Your task to perform on an android device: open chrome privacy settings Image 0: 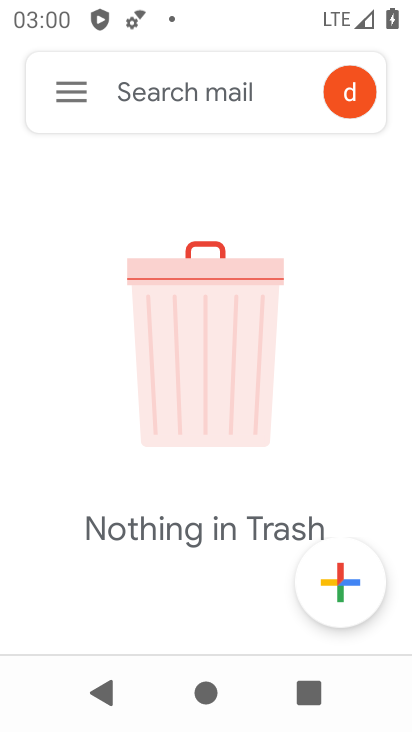
Step 0: press home button
Your task to perform on an android device: open chrome privacy settings Image 1: 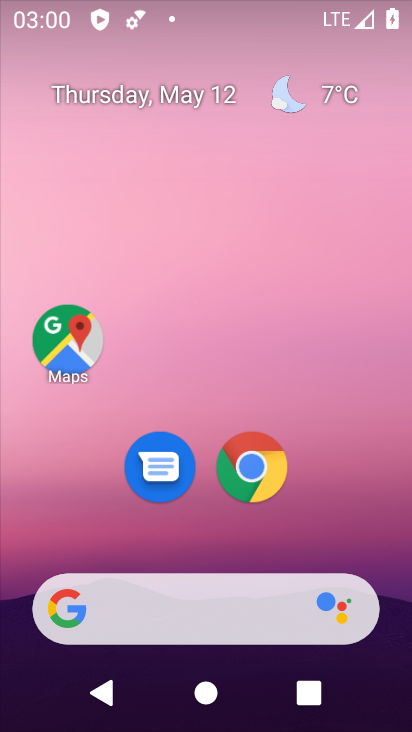
Step 1: click (265, 465)
Your task to perform on an android device: open chrome privacy settings Image 2: 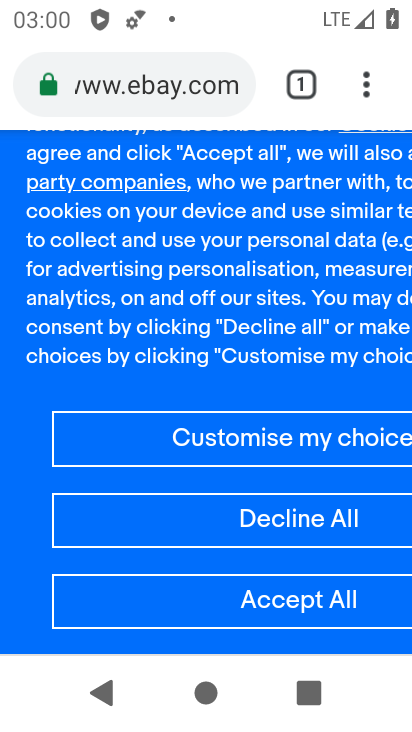
Step 2: click (367, 68)
Your task to perform on an android device: open chrome privacy settings Image 3: 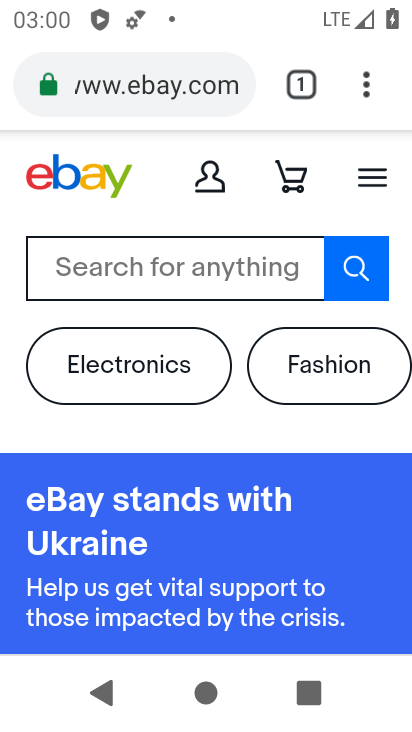
Step 3: click (369, 97)
Your task to perform on an android device: open chrome privacy settings Image 4: 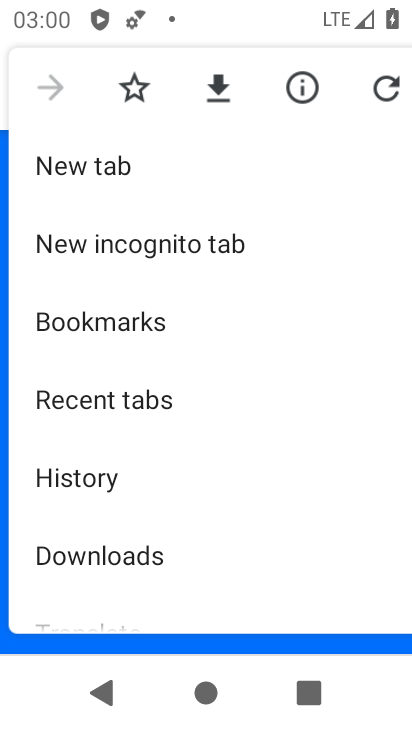
Step 4: drag from (237, 545) to (211, 231)
Your task to perform on an android device: open chrome privacy settings Image 5: 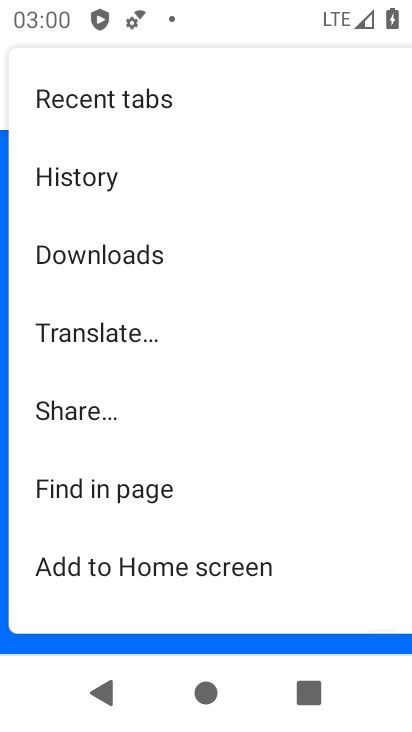
Step 5: drag from (161, 511) to (147, 175)
Your task to perform on an android device: open chrome privacy settings Image 6: 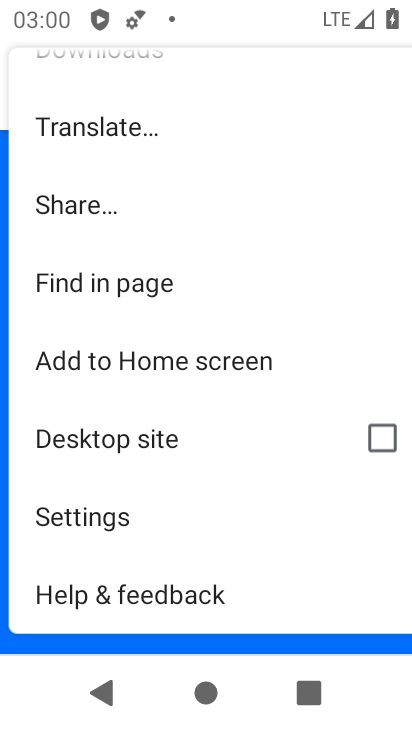
Step 6: click (112, 518)
Your task to perform on an android device: open chrome privacy settings Image 7: 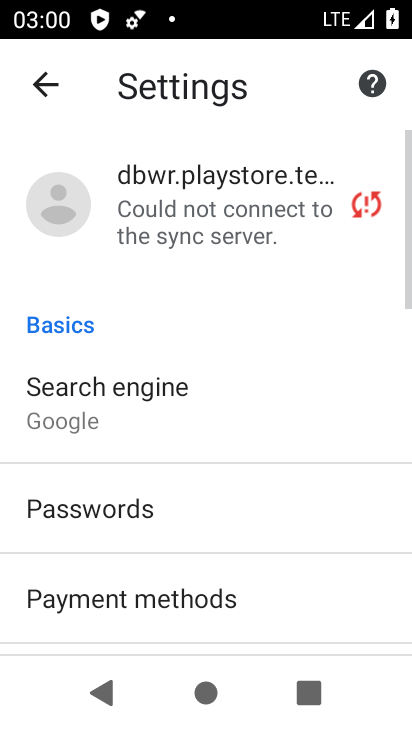
Step 7: drag from (153, 538) to (158, 60)
Your task to perform on an android device: open chrome privacy settings Image 8: 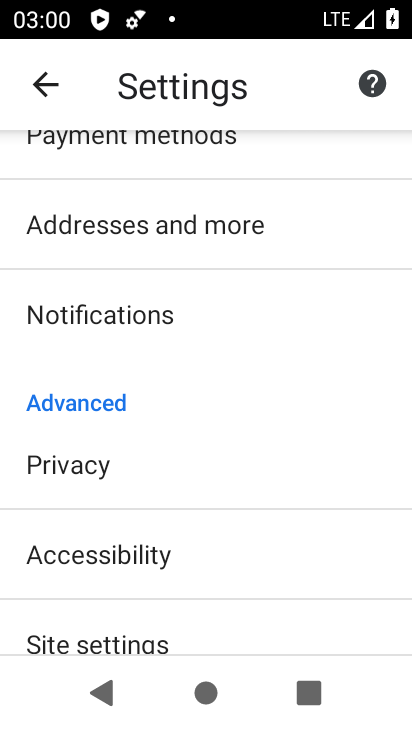
Step 8: click (117, 468)
Your task to perform on an android device: open chrome privacy settings Image 9: 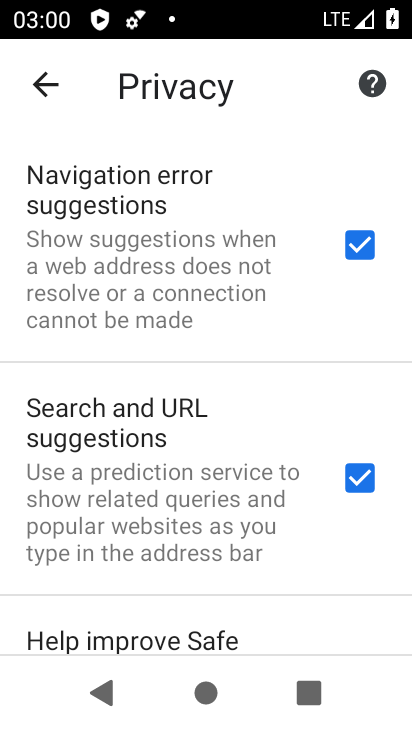
Step 9: task complete